Your task to perform on an android device: change notification settings in the gmail app Image 0: 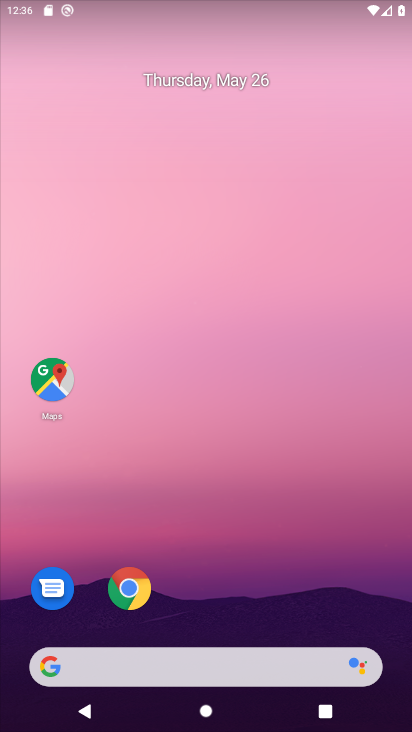
Step 0: drag from (384, 673) to (362, 294)
Your task to perform on an android device: change notification settings in the gmail app Image 1: 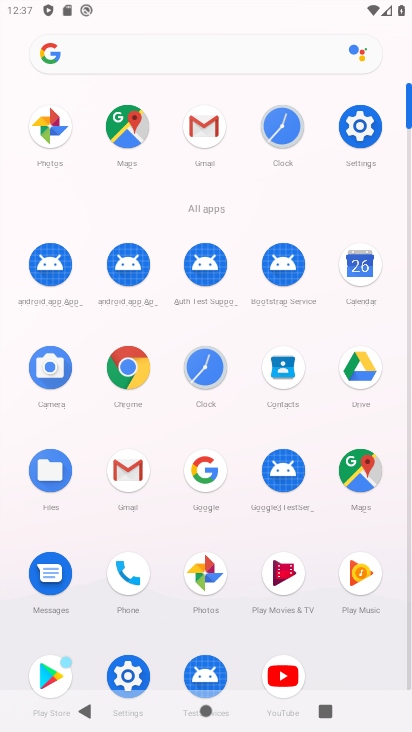
Step 1: click (128, 471)
Your task to perform on an android device: change notification settings in the gmail app Image 2: 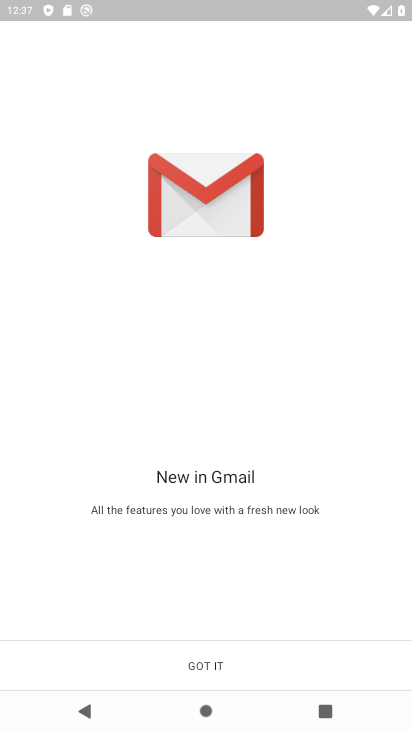
Step 2: click (193, 662)
Your task to perform on an android device: change notification settings in the gmail app Image 3: 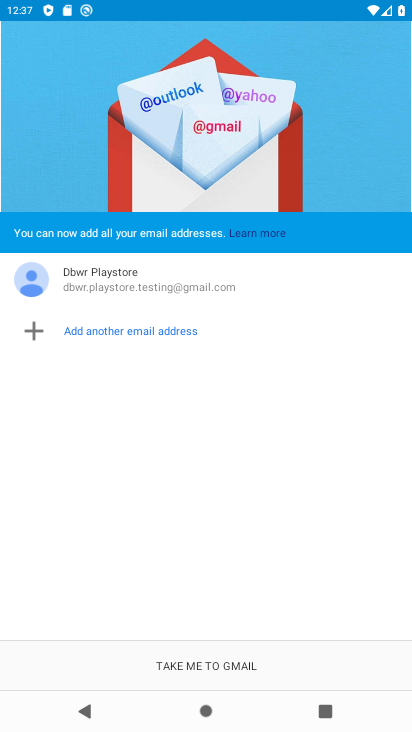
Step 3: click (193, 662)
Your task to perform on an android device: change notification settings in the gmail app Image 4: 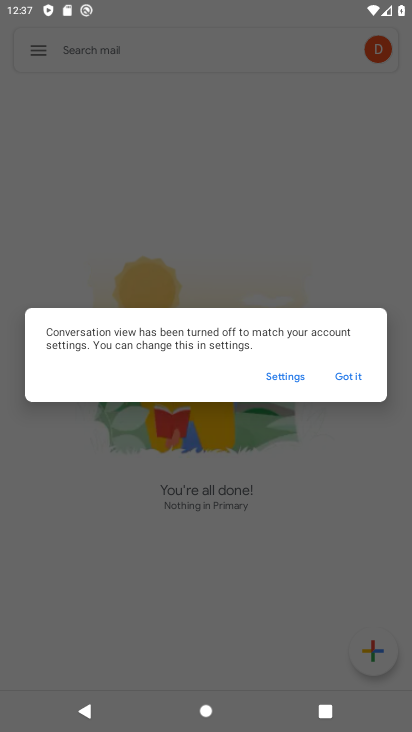
Step 4: click (339, 376)
Your task to perform on an android device: change notification settings in the gmail app Image 5: 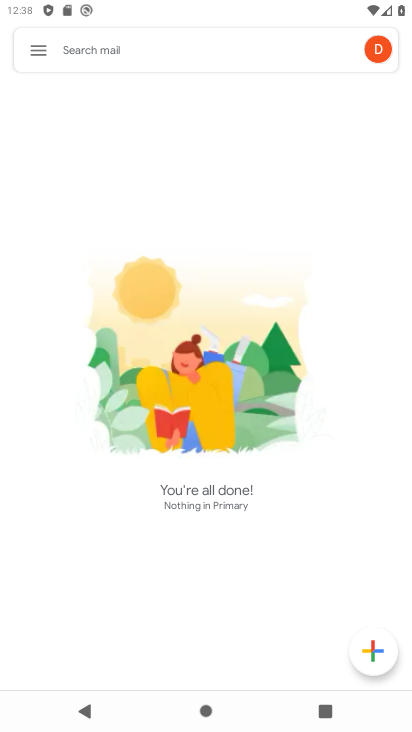
Step 5: click (42, 39)
Your task to perform on an android device: change notification settings in the gmail app Image 6: 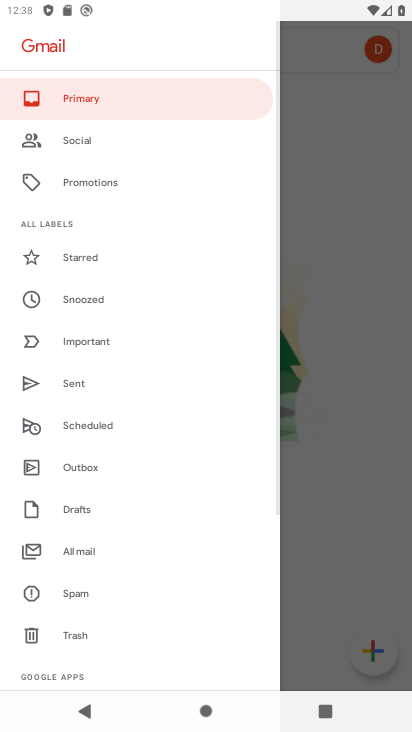
Step 6: drag from (150, 574) to (143, 386)
Your task to perform on an android device: change notification settings in the gmail app Image 7: 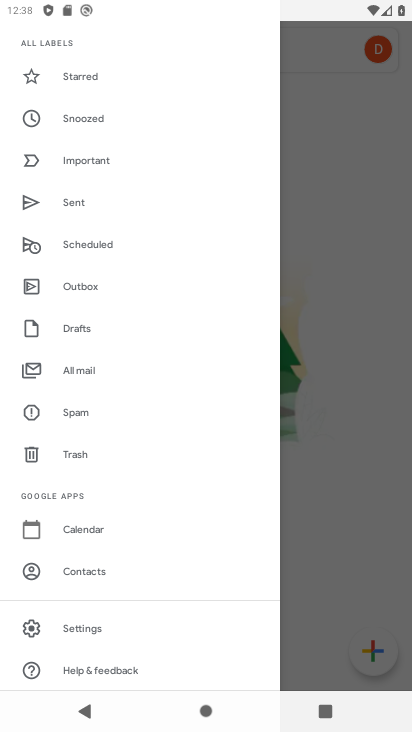
Step 7: click (66, 634)
Your task to perform on an android device: change notification settings in the gmail app Image 8: 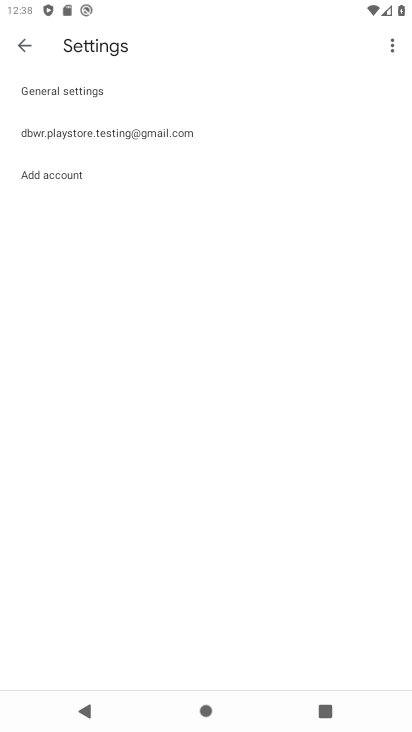
Step 8: click (27, 95)
Your task to perform on an android device: change notification settings in the gmail app Image 9: 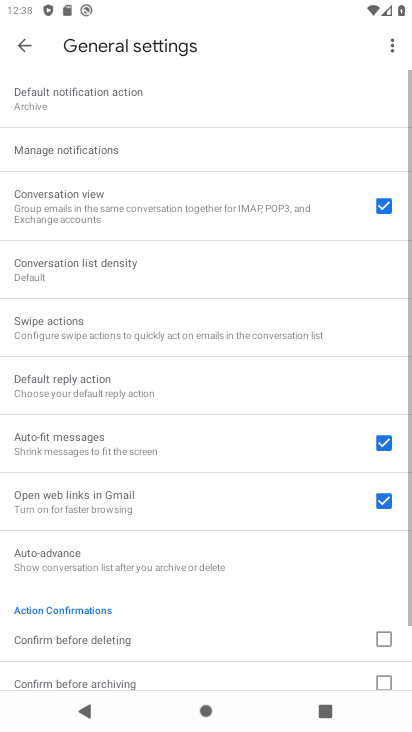
Step 9: click (71, 147)
Your task to perform on an android device: change notification settings in the gmail app Image 10: 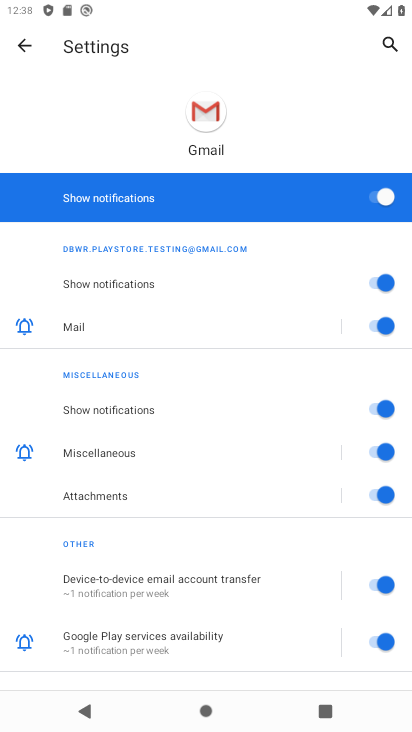
Step 10: click (375, 189)
Your task to perform on an android device: change notification settings in the gmail app Image 11: 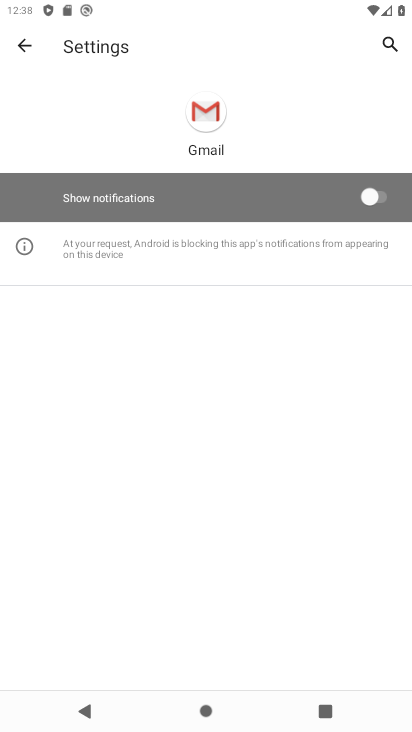
Step 11: task complete